Your task to perform on an android device: turn on bluetooth scan Image 0: 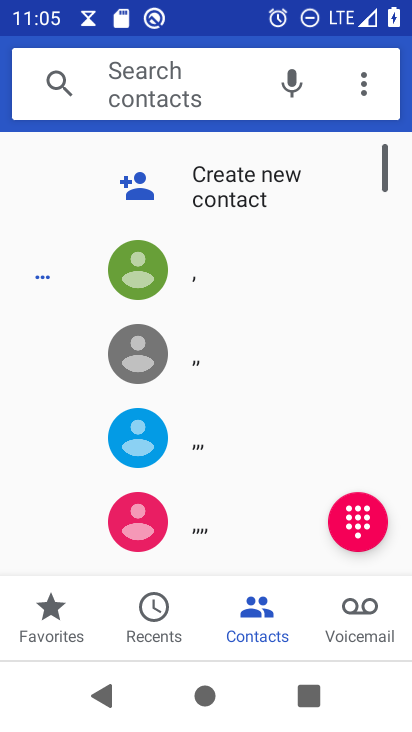
Step 0: press home button
Your task to perform on an android device: turn on bluetooth scan Image 1: 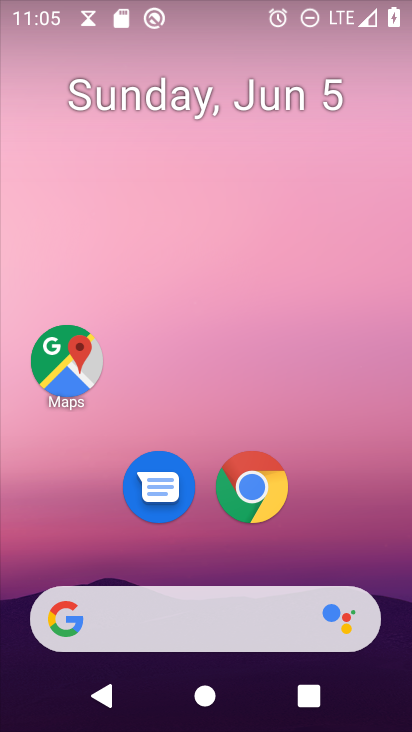
Step 1: drag from (308, 564) to (269, 218)
Your task to perform on an android device: turn on bluetooth scan Image 2: 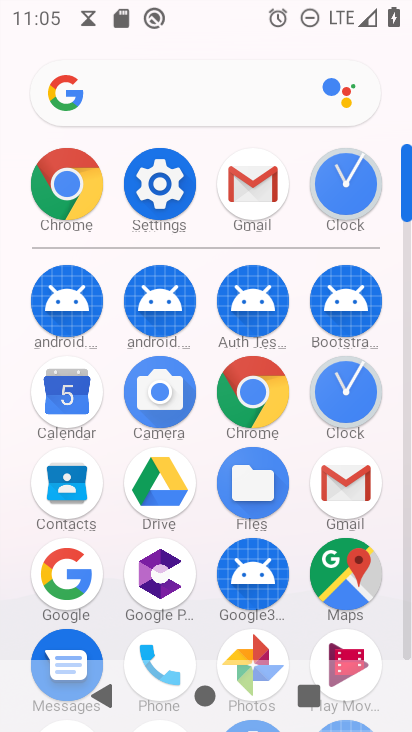
Step 2: click (165, 180)
Your task to perform on an android device: turn on bluetooth scan Image 3: 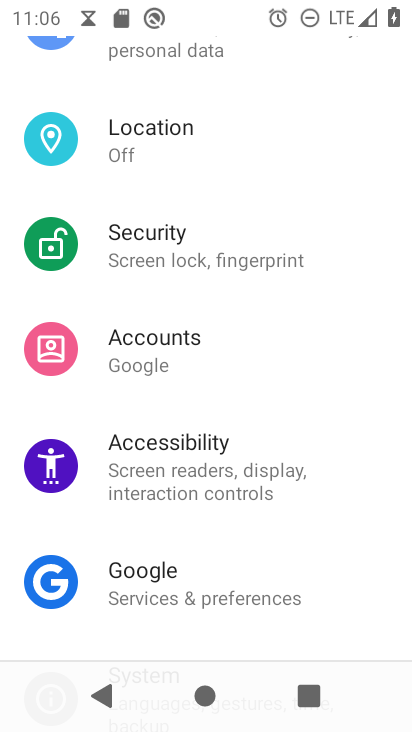
Step 3: drag from (163, 119) to (174, 542)
Your task to perform on an android device: turn on bluetooth scan Image 4: 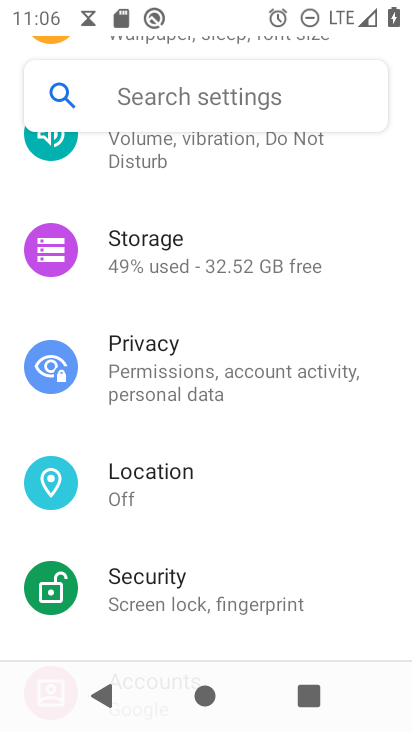
Step 4: click (195, 84)
Your task to perform on an android device: turn on bluetooth scan Image 5: 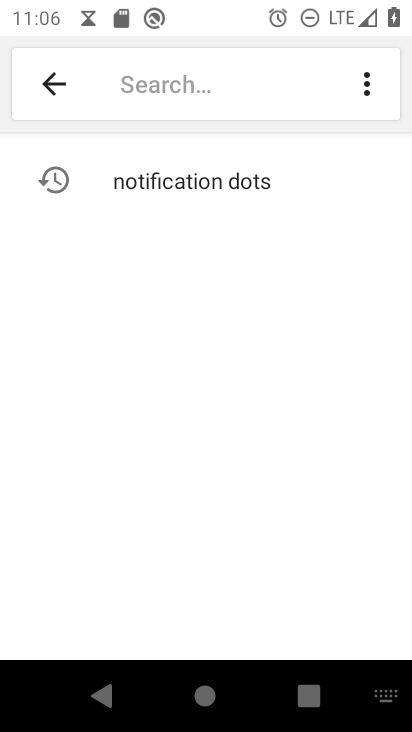
Step 5: click (157, 78)
Your task to perform on an android device: turn on bluetooth scan Image 6: 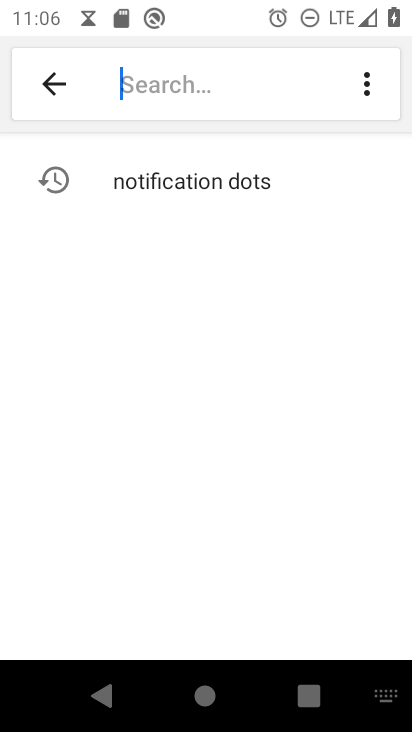
Step 6: type "bluetooth scan"
Your task to perform on an android device: turn on bluetooth scan Image 7: 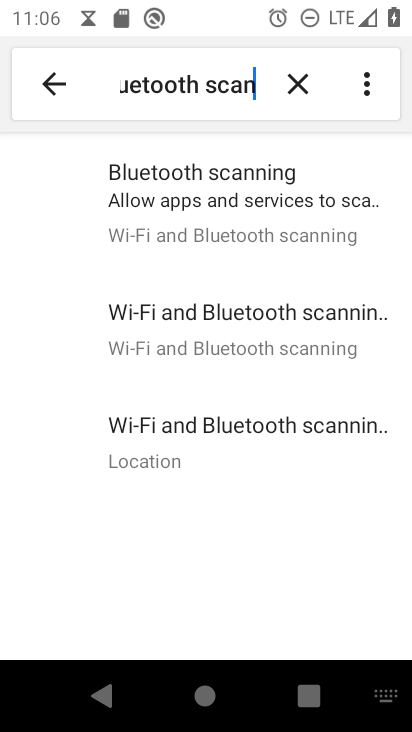
Step 7: click (172, 191)
Your task to perform on an android device: turn on bluetooth scan Image 8: 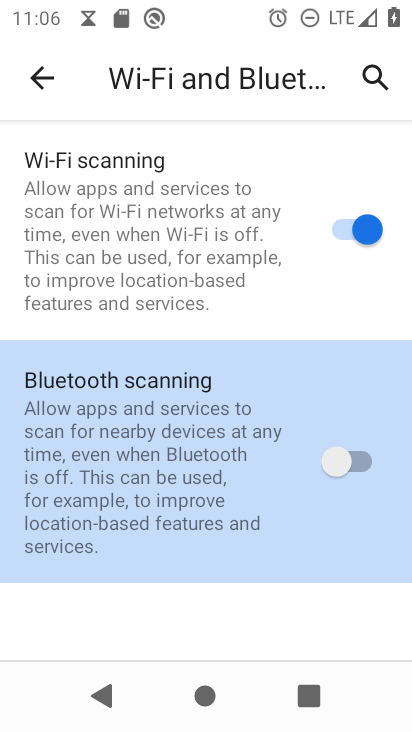
Step 8: click (352, 462)
Your task to perform on an android device: turn on bluetooth scan Image 9: 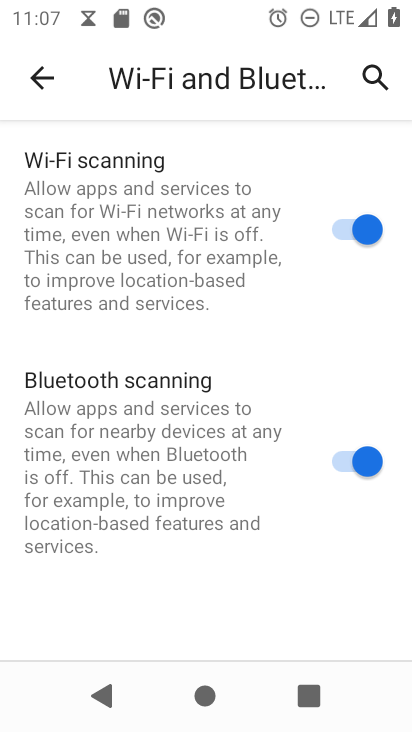
Step 9: task complete